Your task to perform on an android device: toggle wifi Image 0: 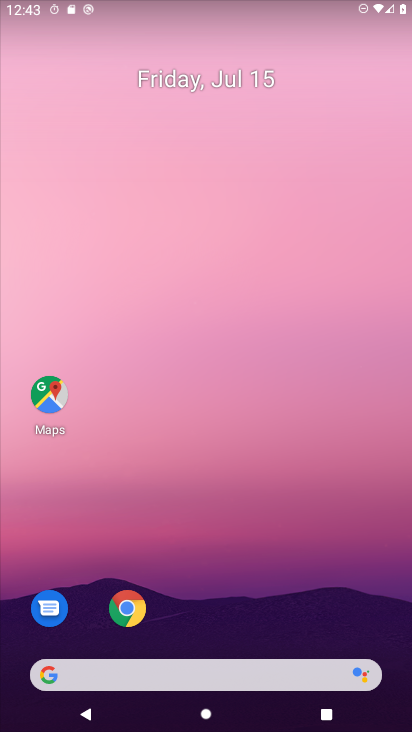
Step 0: drag from (202, 661) to (194, 133)
Your task to perform on an android device: toggle wifi Image 1: 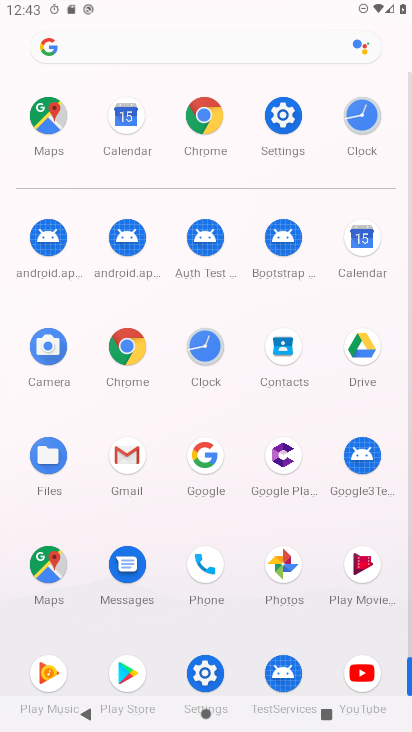
Step 1: click (270, 114)
Your task to perform on an android device: toggle wifi Image 2: 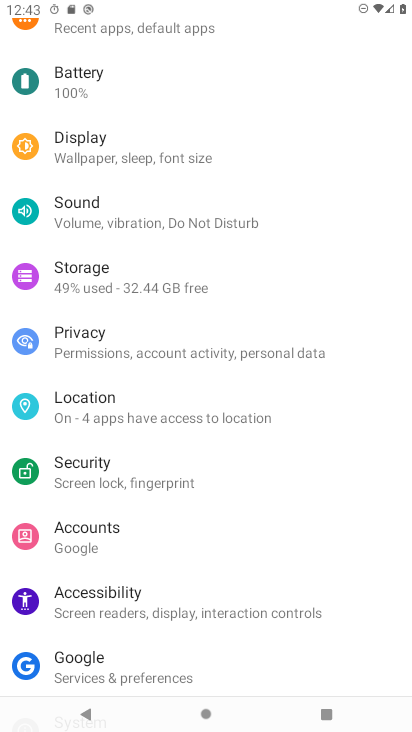
Step 2: drag from (105, 90) to (150, 638)
Your task to perform on an android device: toggle wifi Image 3: 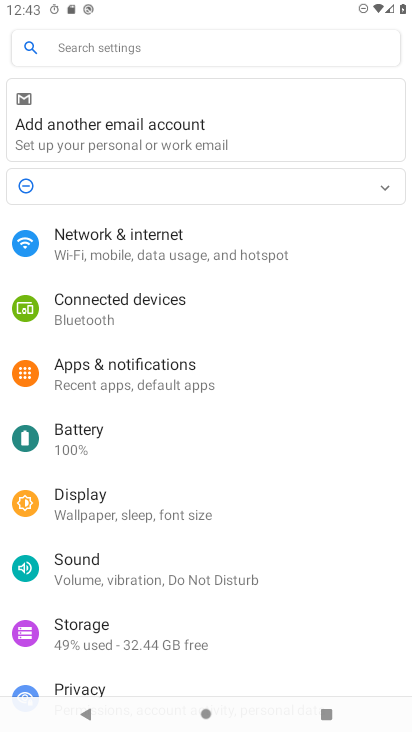
Step 3: click (162, 248)
Your task to perform on an android device: toggle wifi Image 4: 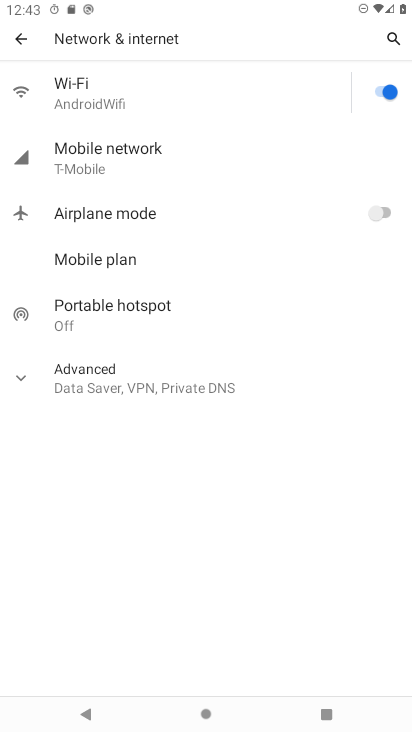
Step 4: click (384, 90)
Your task to perform on an android device: toggle wifi Image 5: 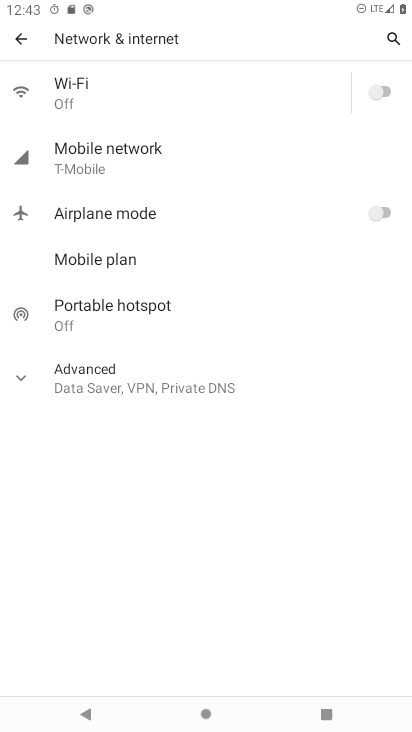
Step 5: task complete